Your task to perform on an android device: turn on javascript in the chrome app Image 0: 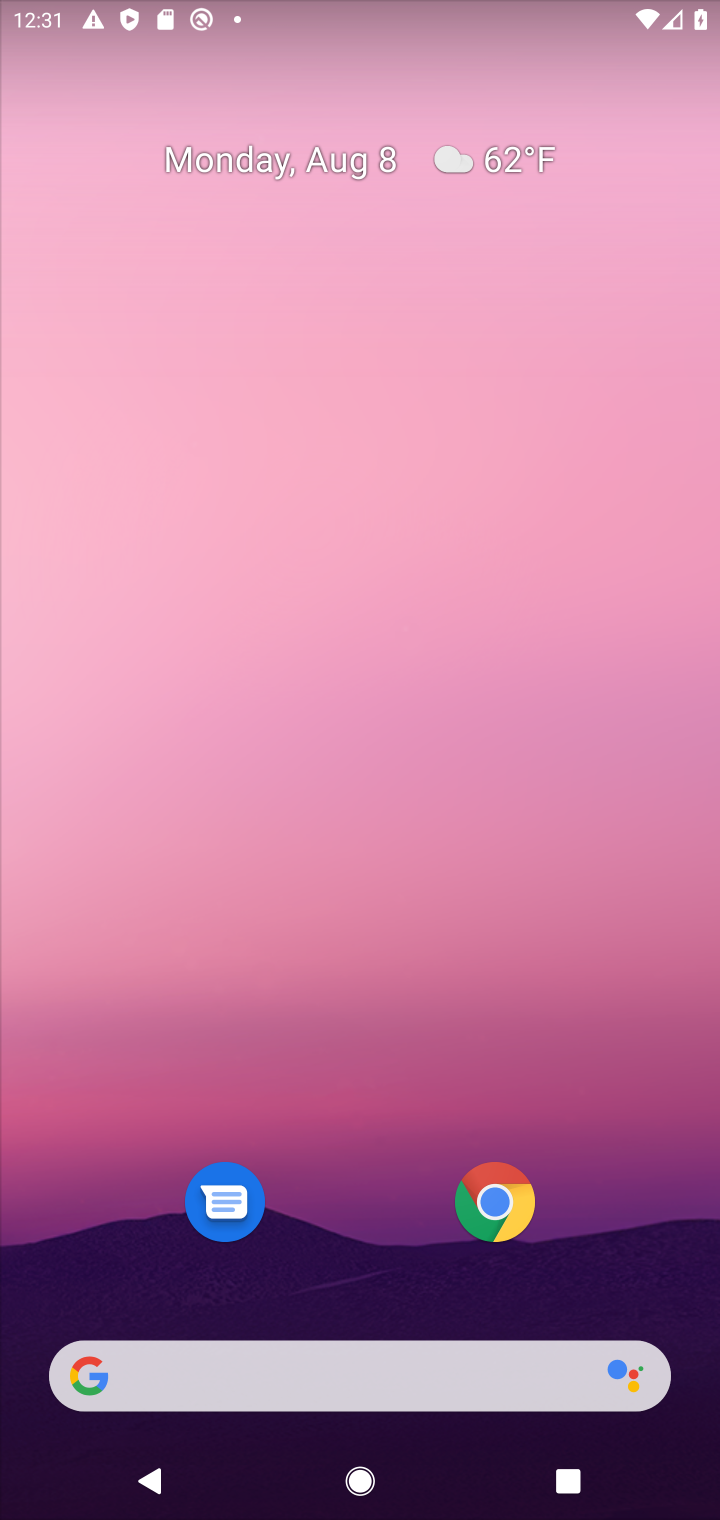
Step 0: click (494, 1219)
Your task to perform on an android device: turn on javascript in the chrome app Image 1: 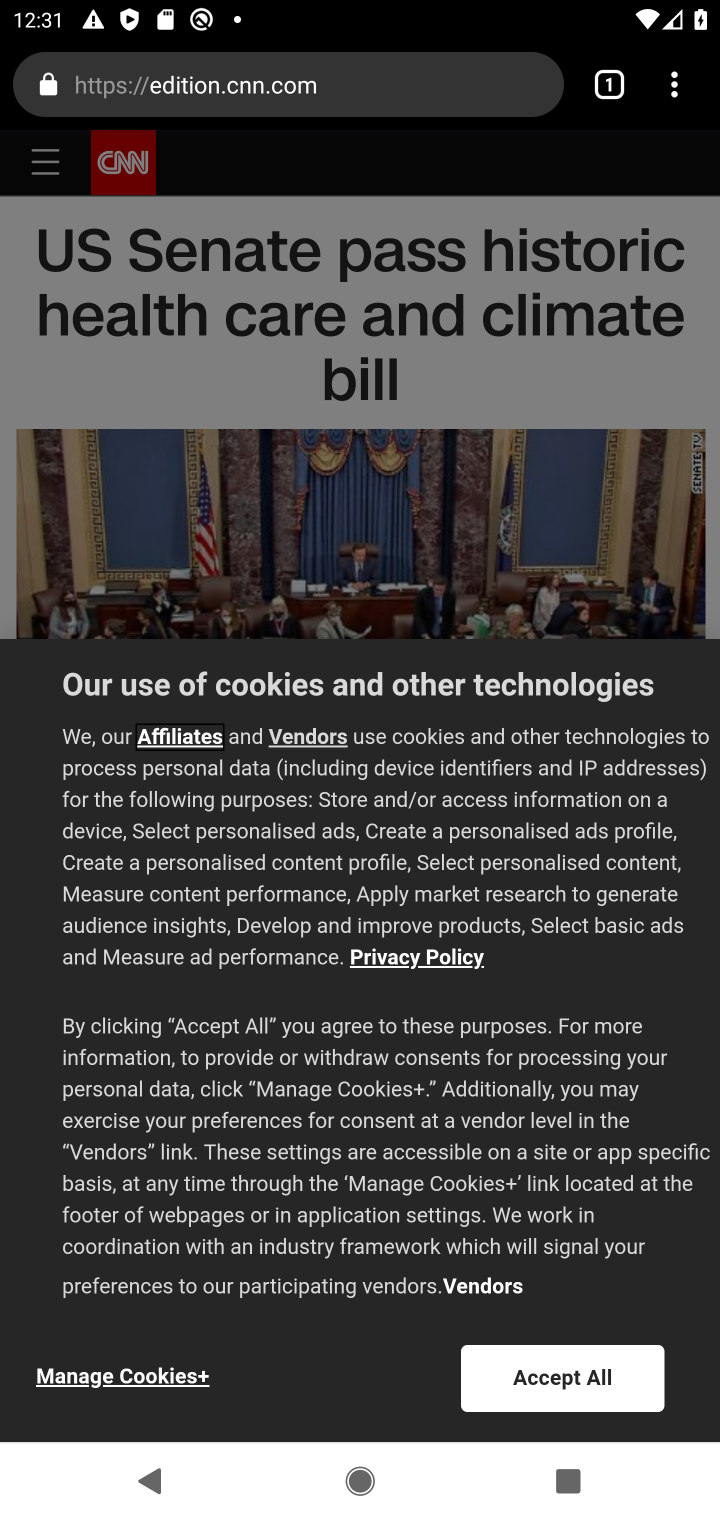
Step 1: click (664, 95)
Your task to perform on an android device: turn on javascript in the chrome app Image 2: 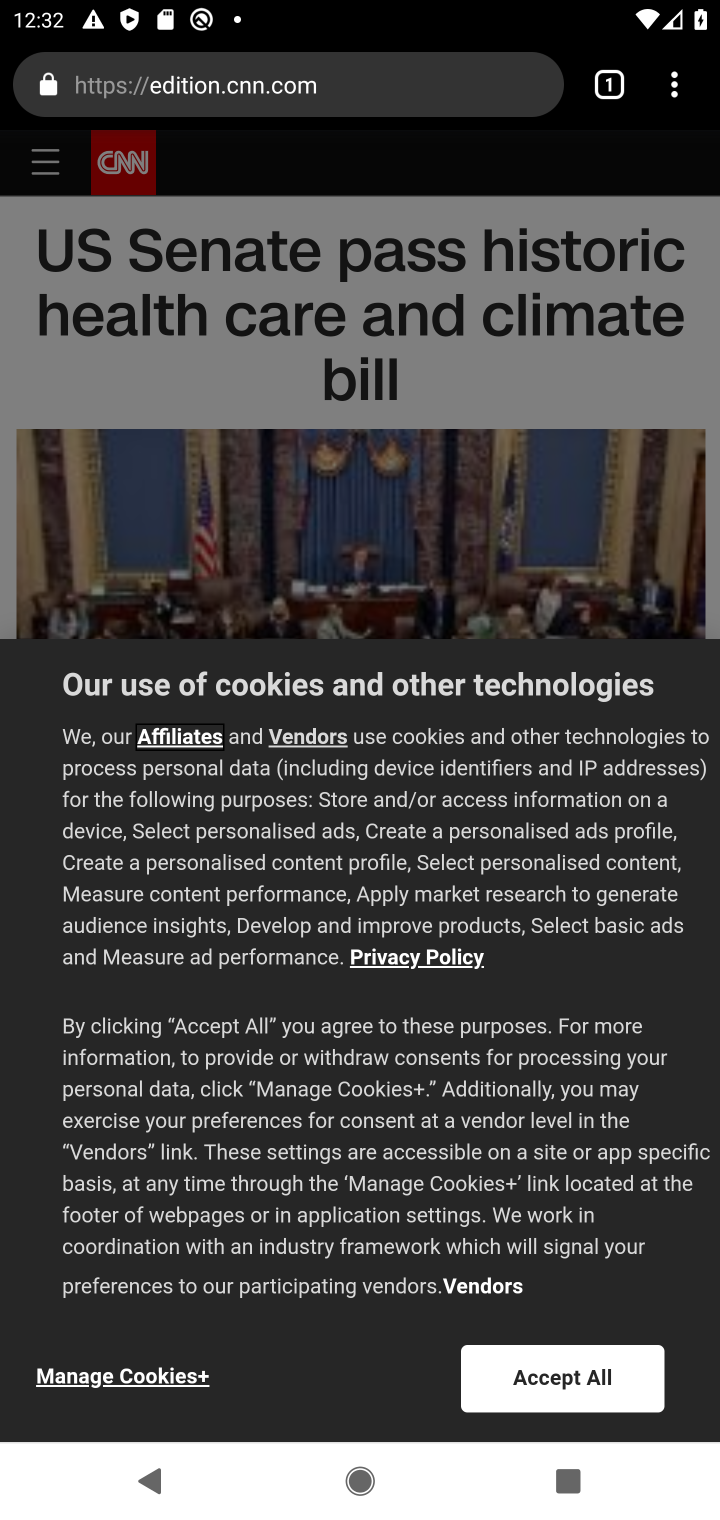
Step 2: click (678, 83)
Your task to perform on an android device: turn on javascript in the chrome app Image 3: 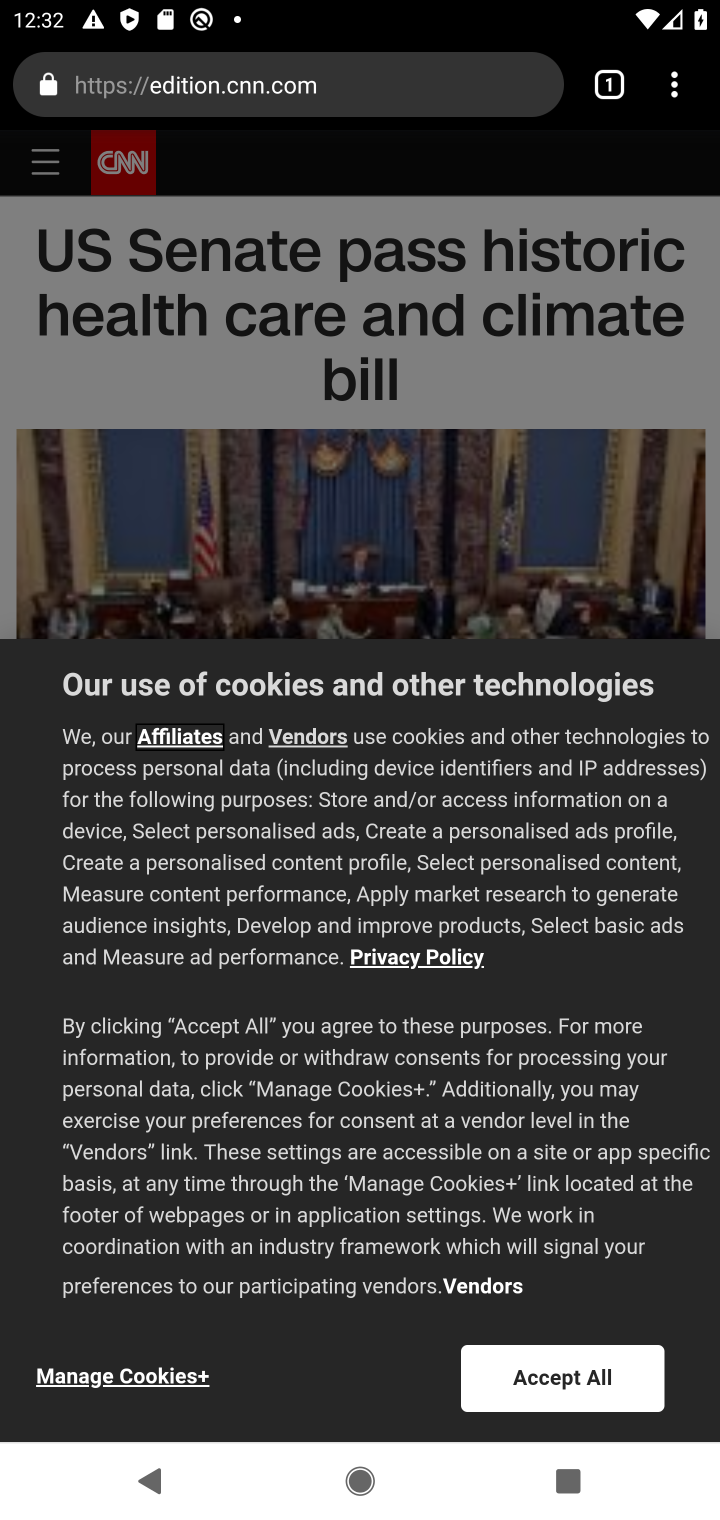
Step 3: click (671, 85)
Your task to perform on an android device: turn on javascript in the chrome app Image 4: 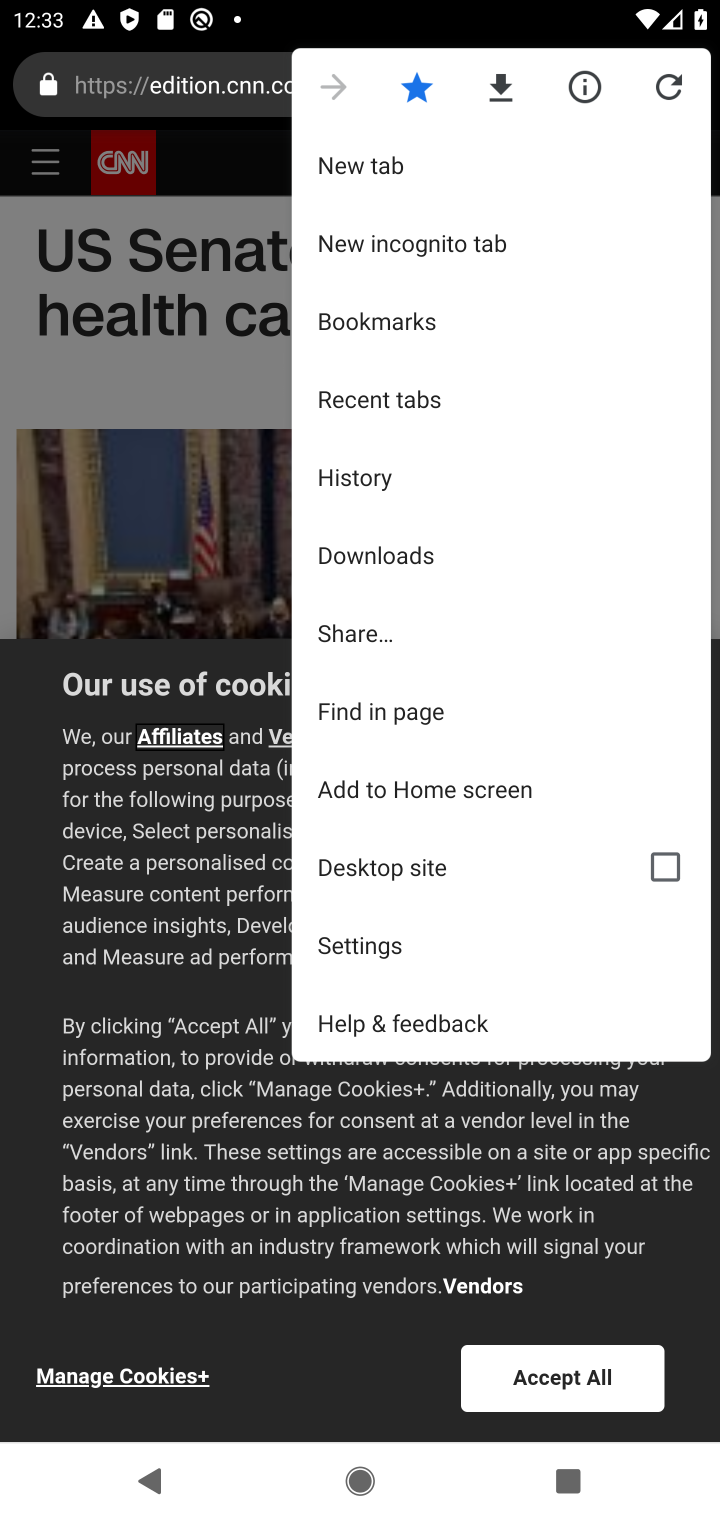
Step 4: click (371, 954)
Your task to perform on an android device: turn on javascript in the chrome app Image 5: 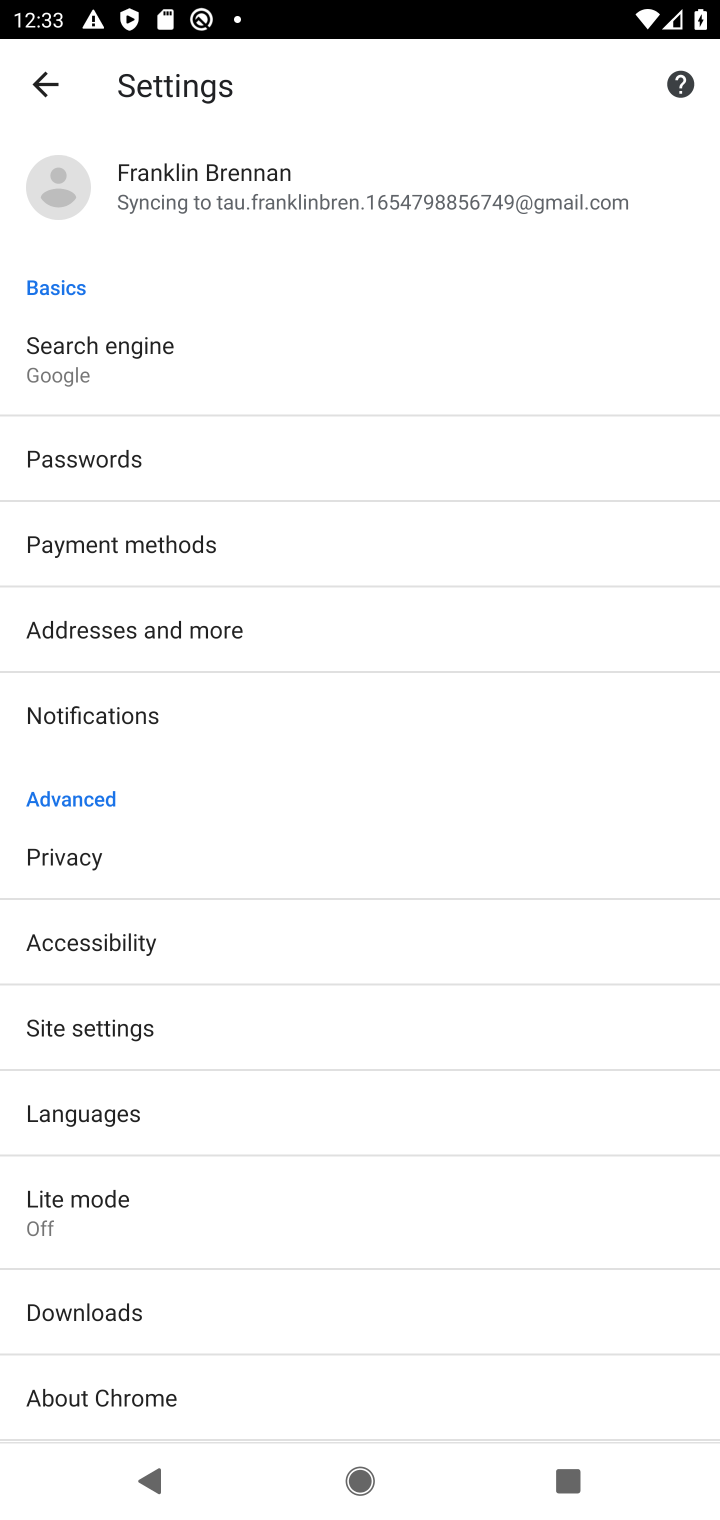
Step 5: click (92, 1023)
Your task to perform on an android device: turn on javascript in the chrome app Image 6: 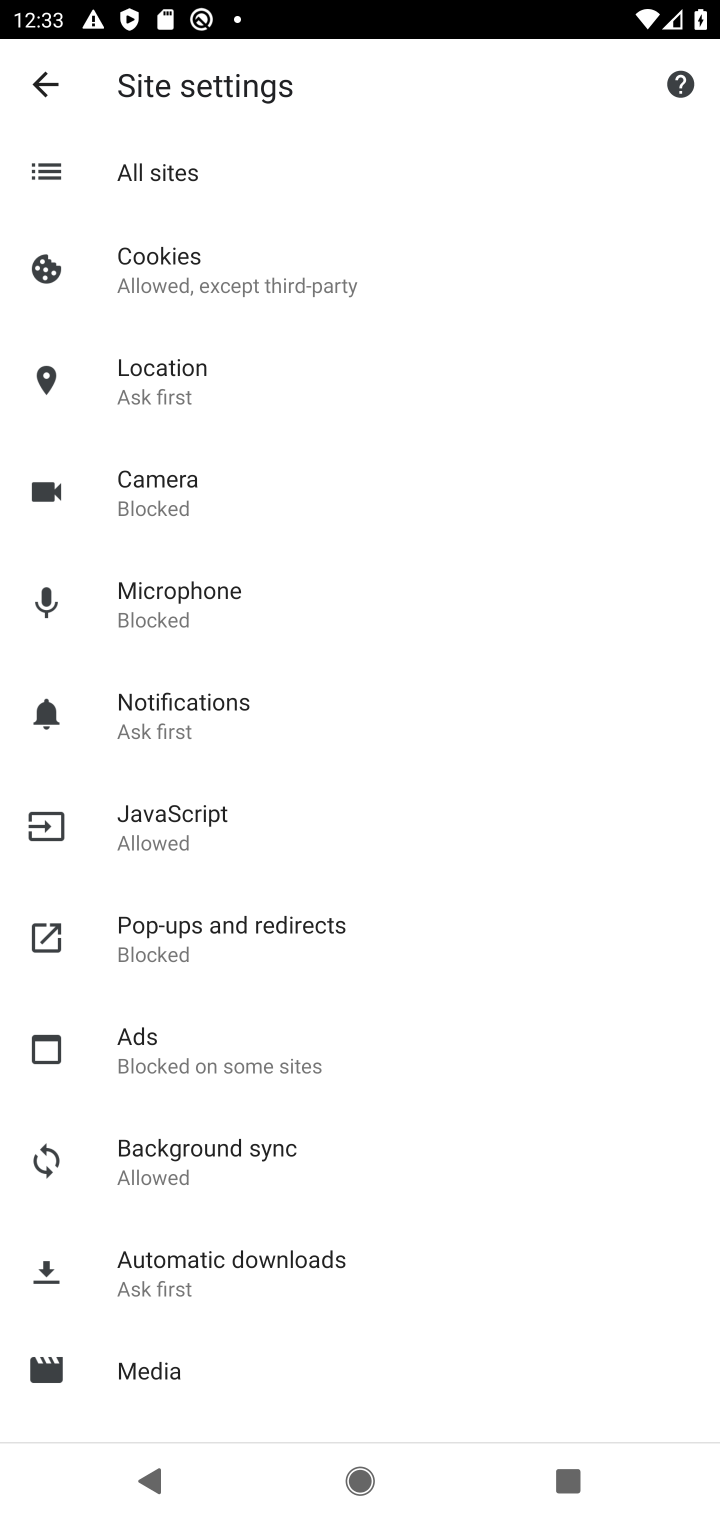
Step 6: click (259, 811)
Your task to perform on an android device: turn on javascript in the chrome app Image 7: 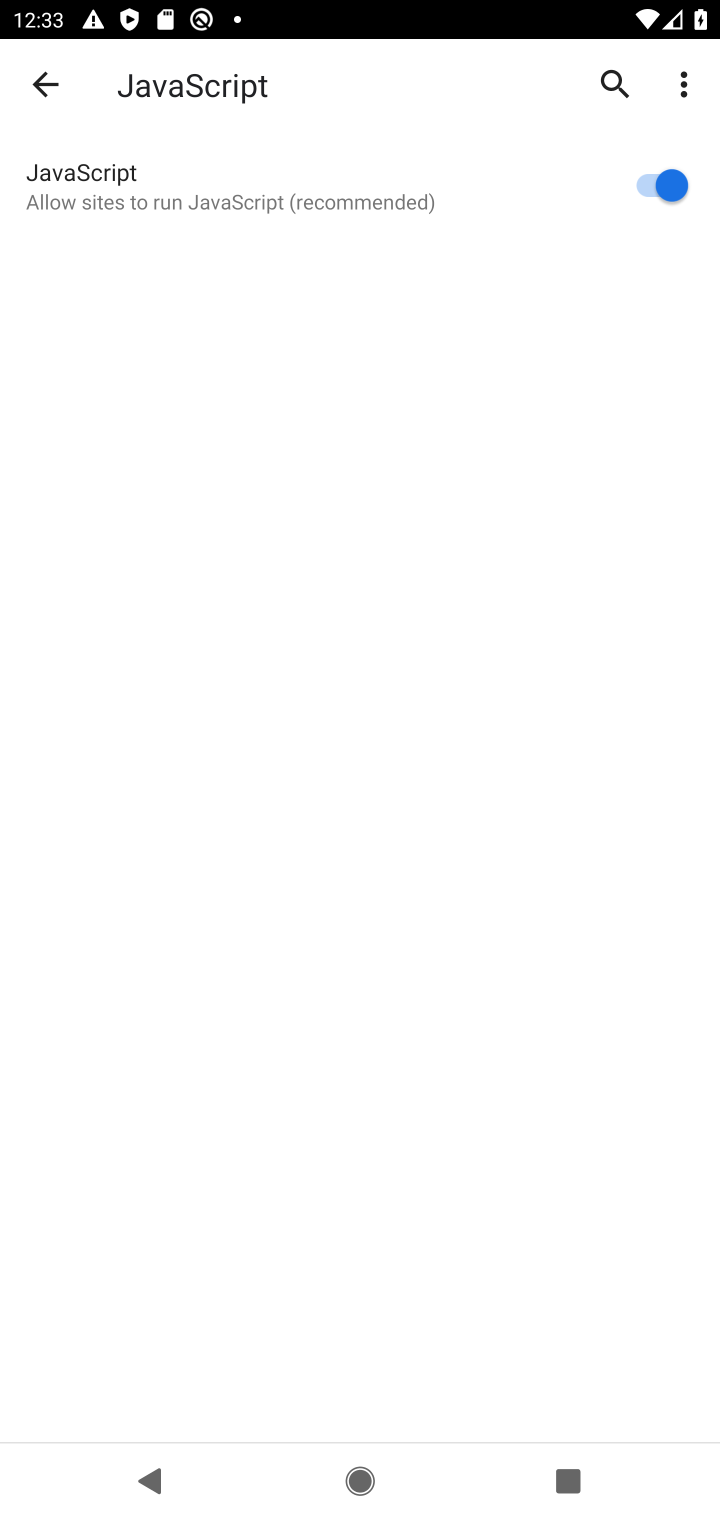
Step 7: task complete